Your task to perform on an android device: add a contact Image 0: 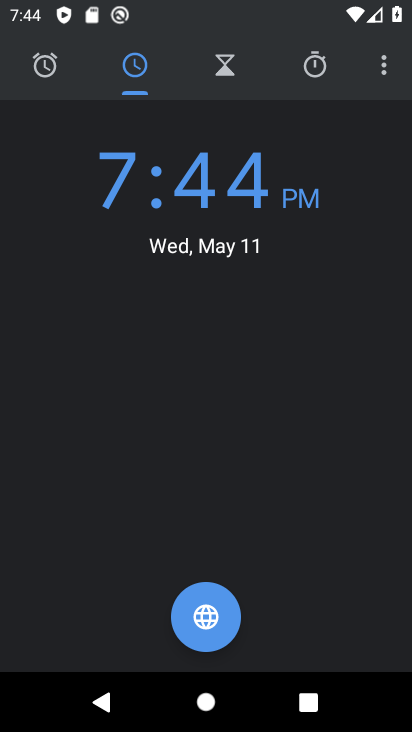
Step 0: press home button
Your task to perform on an android device: add a contact Image 1: 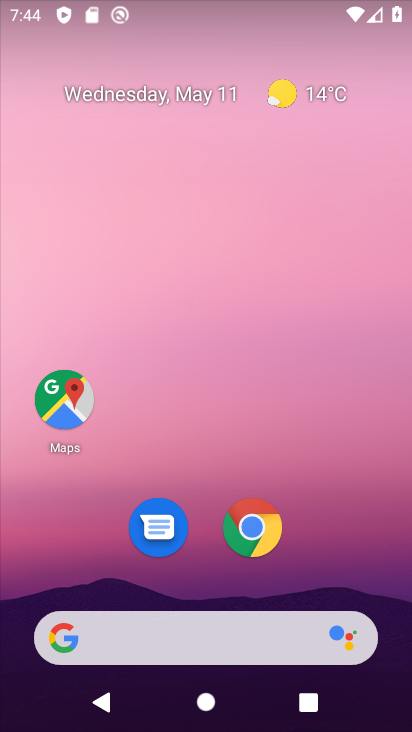
Step 1: drag from (274, 571) to (205, 1)
Your task to perform on an android device: add a contact Image 2: 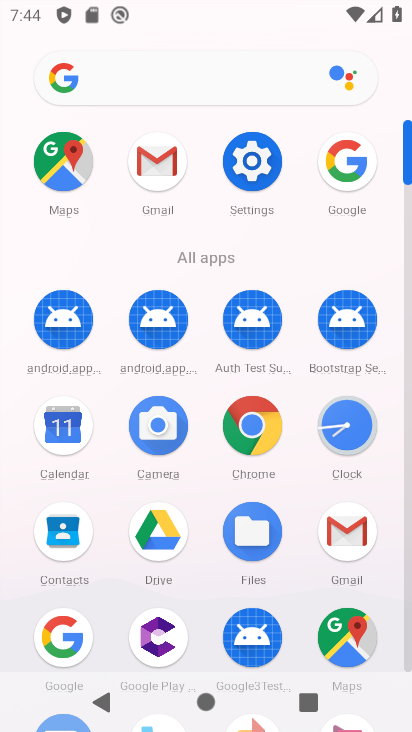
Step 2: click (60, 536)
Your task to perform on an android device: add a contact Image 3: 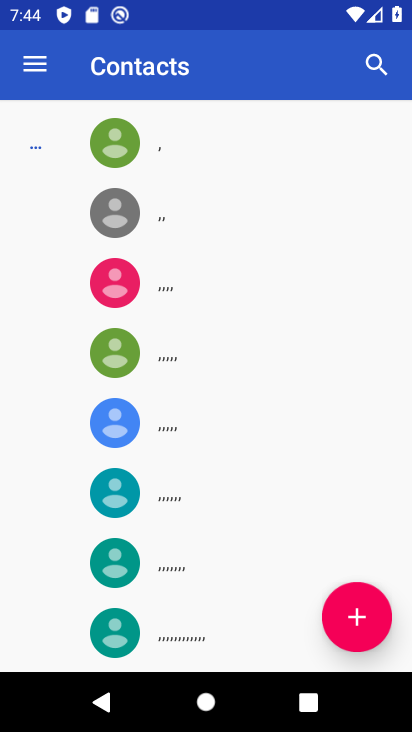
Step 3: click (362, 625)
Your task to perform on an android device: add a contact Image 4: 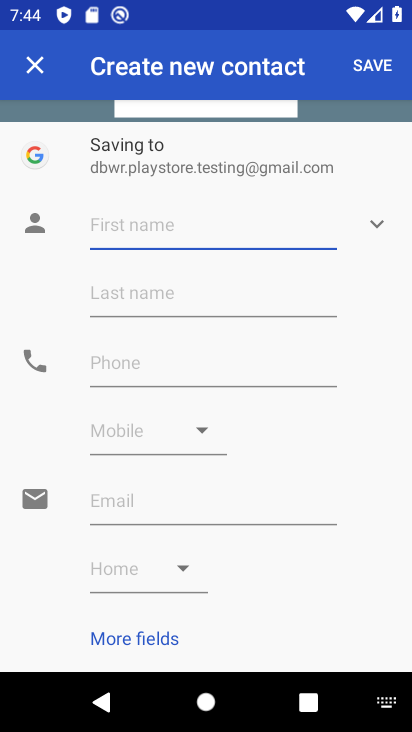
Step 4: type "vvjvj"
Your task to perform on an android device: add a contact Image 5: 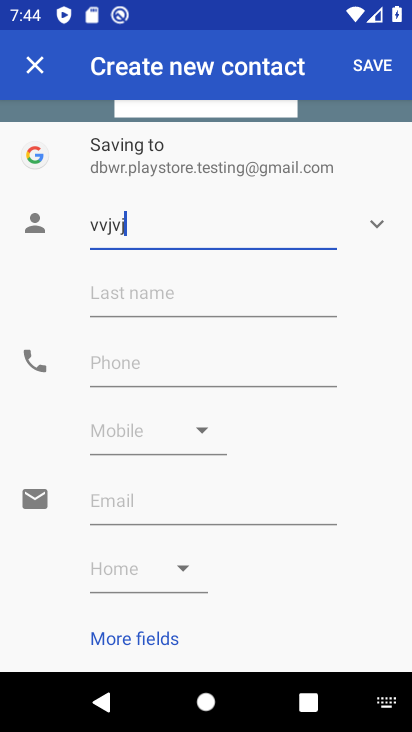
Step 5: click (148, 368)
Your task to perform on an android device: add a contact Image 6: 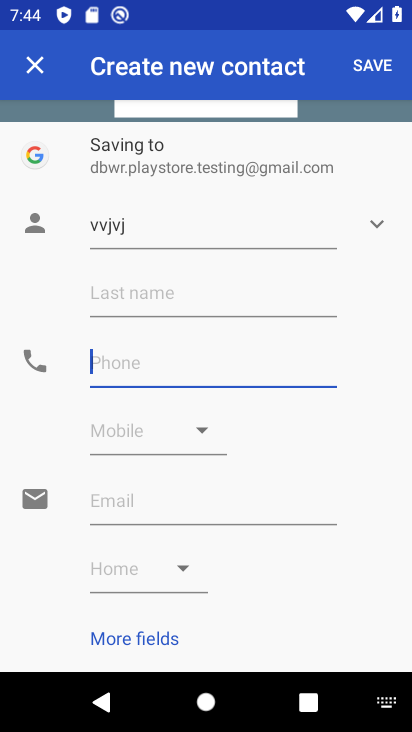
Step 6: type "8786769685"
Your task to perform on an android device: add a contact Image 7: 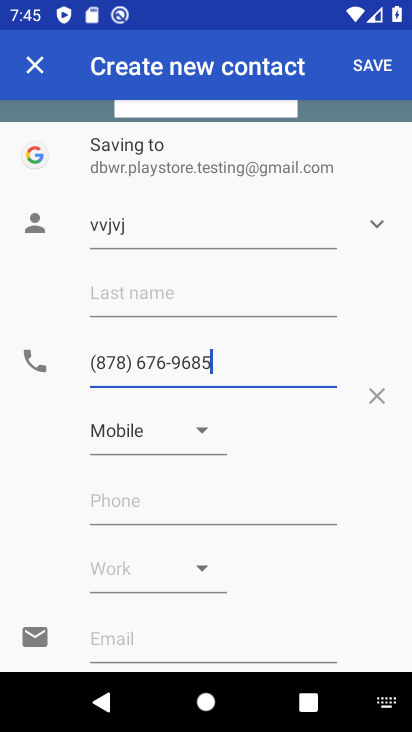
Step 7: click (384, 68)
Your task to perform on an android device: add a contact Image 8: 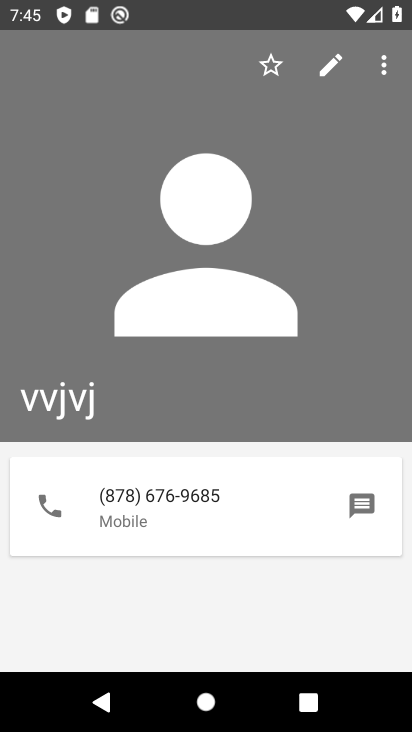
Step 8: task complete